Your task to perform on an android device: turn off location Image 0: 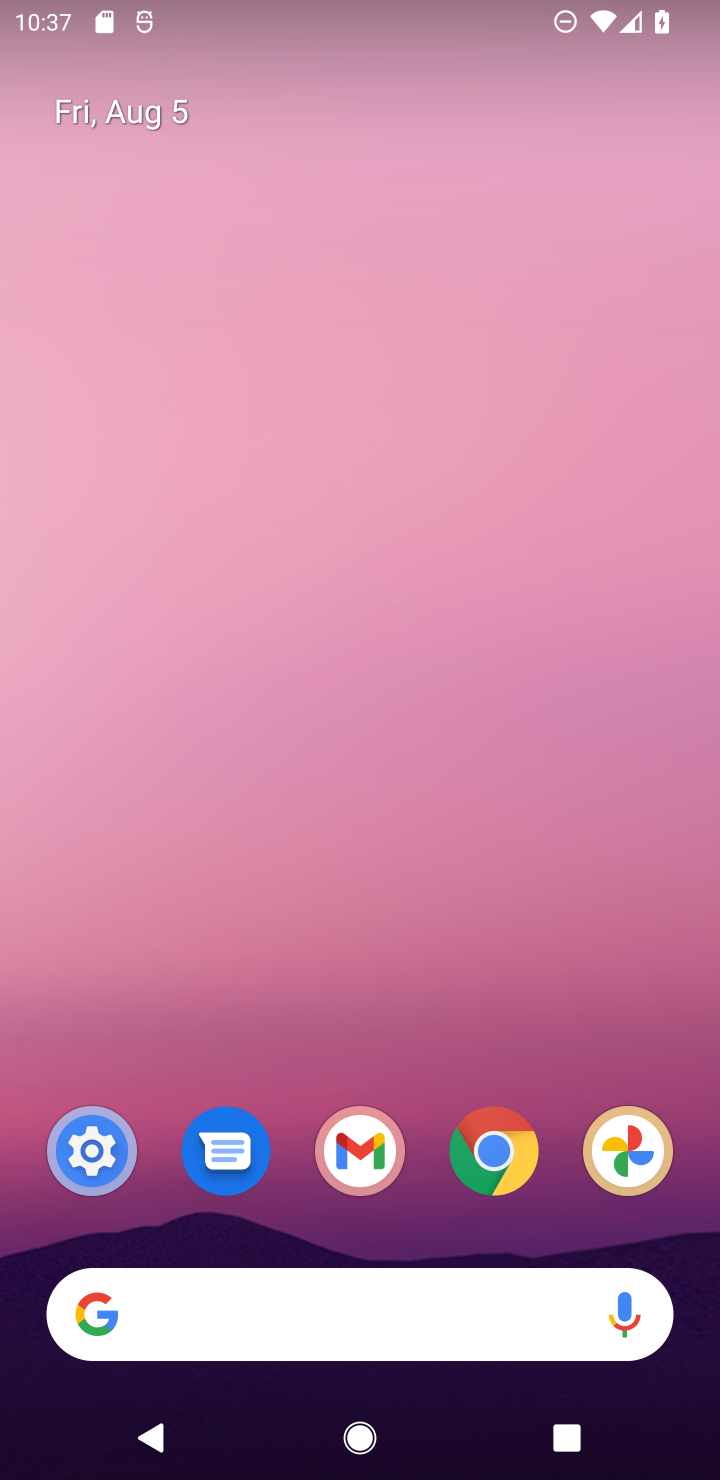
Step 0: click (91, 1164)
Your task to perform on an android device: turn off location Image 1: 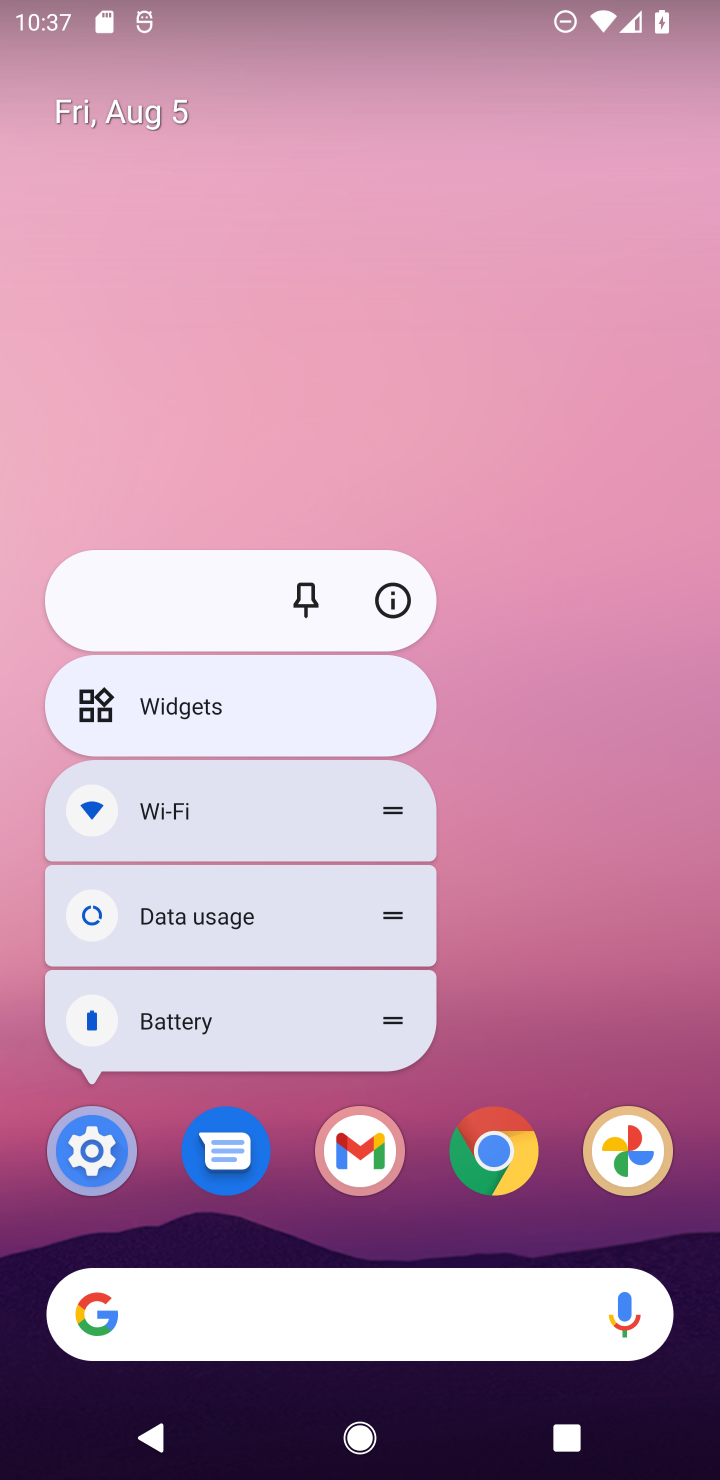
Step 1: click (91, 1164)
Your task to perform on an android device: turn off location Image 2: 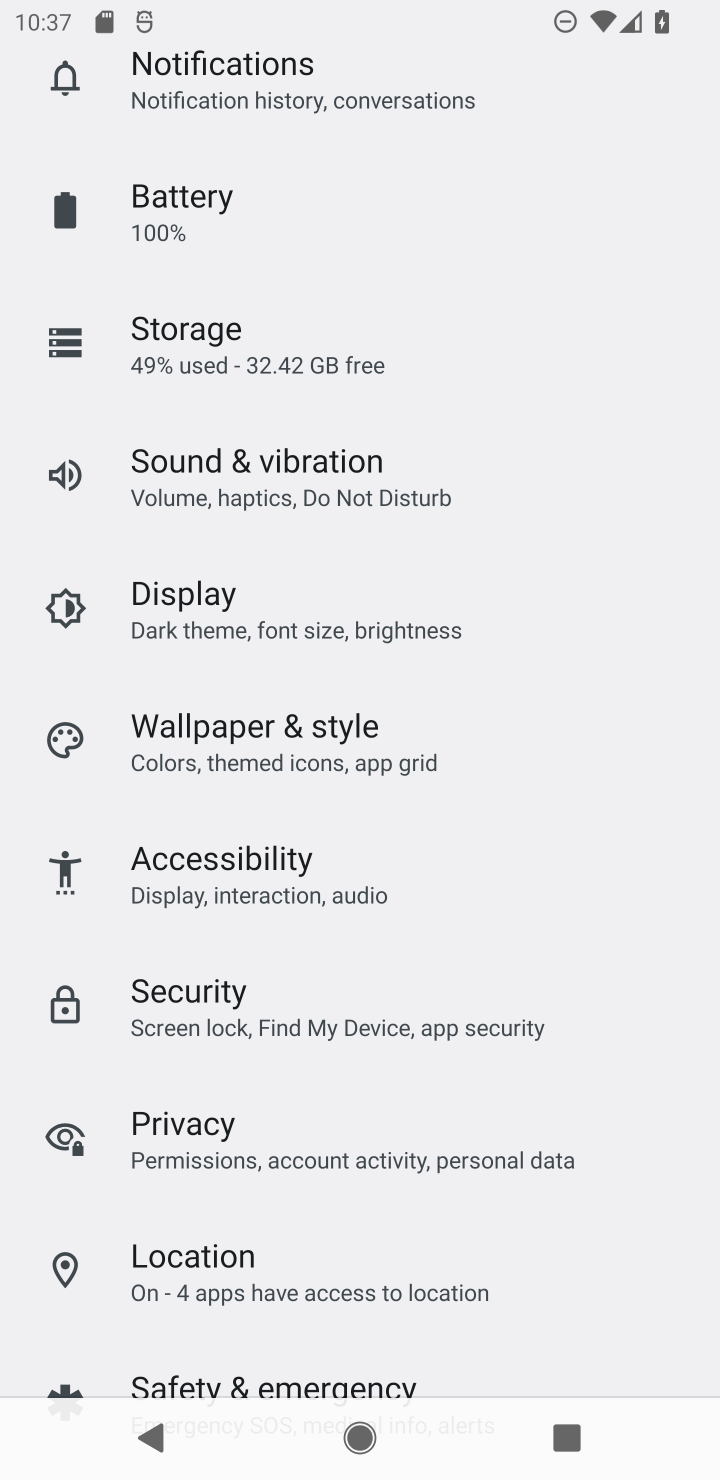
Step 2: click (198, 1281)
Your task to perform on an android device: turn off location Image 3: 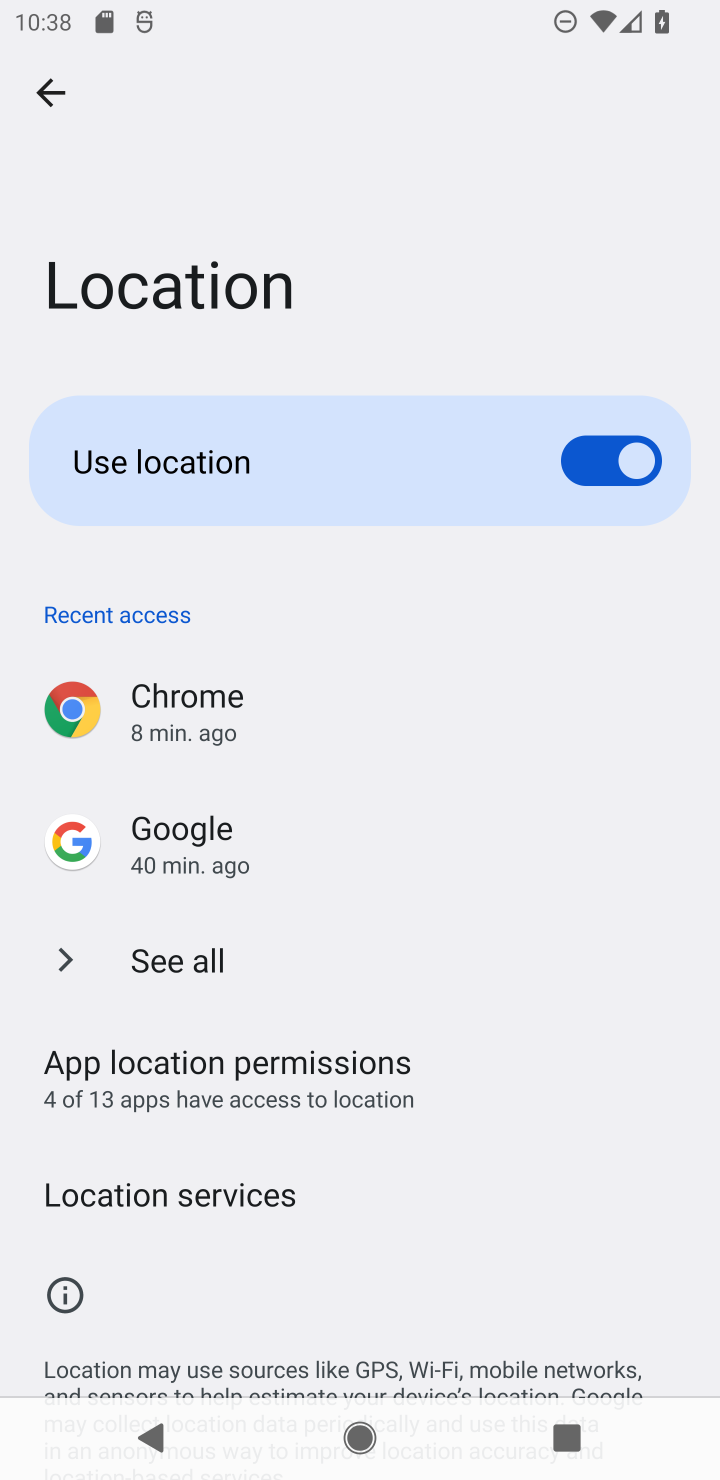
Step 3: click (575, 473)
Your task to perform on an android device: turn off location Image 4: 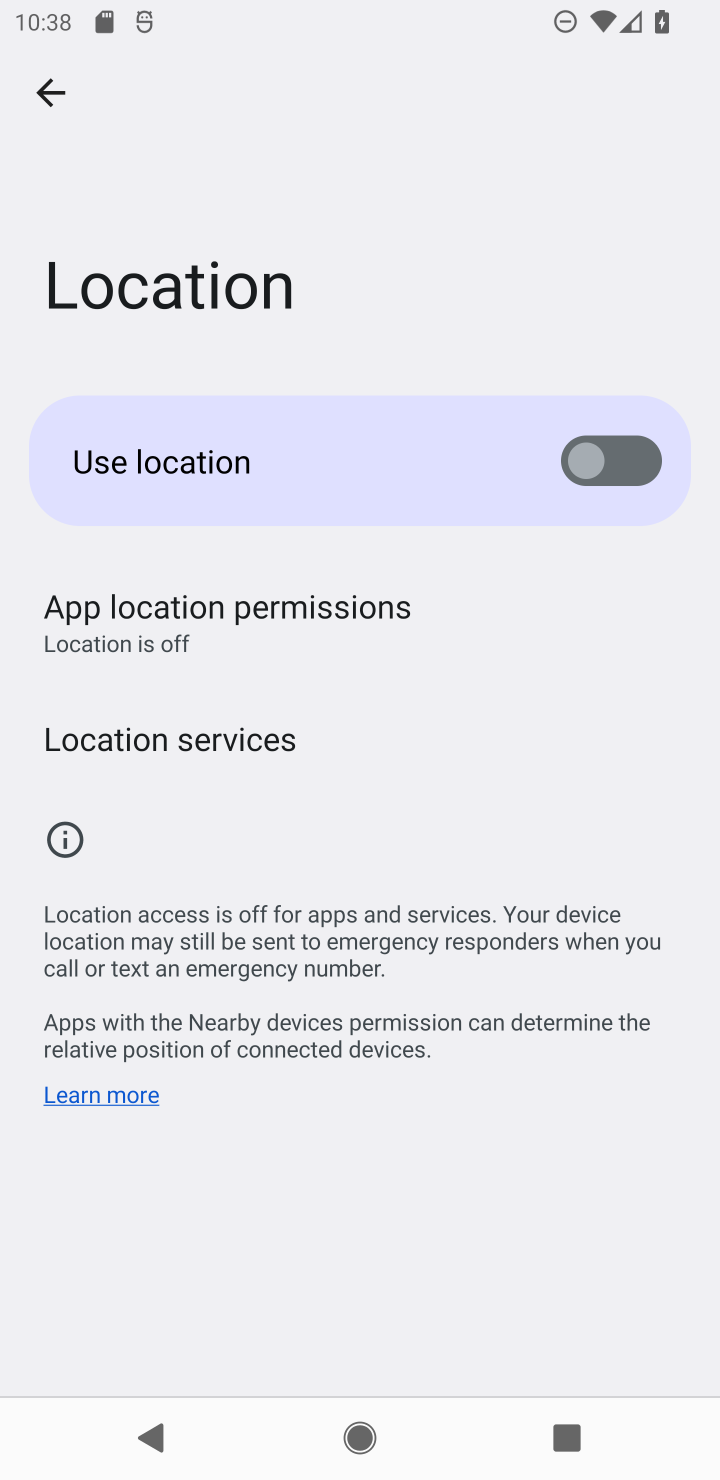
Step 4: task complete